Your task to perform on an android device: delete a single message in the gmail app Image 0: 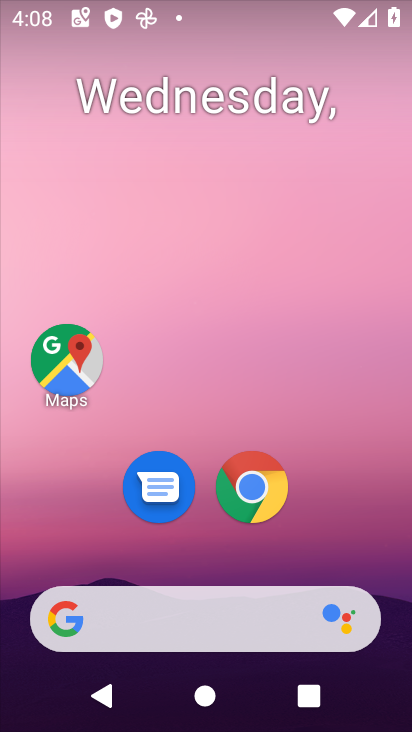
Step 0: drag from (383, 567) to (377, 306)
Your task to perform on an android device: delete a single message in the gmail app Image 1: 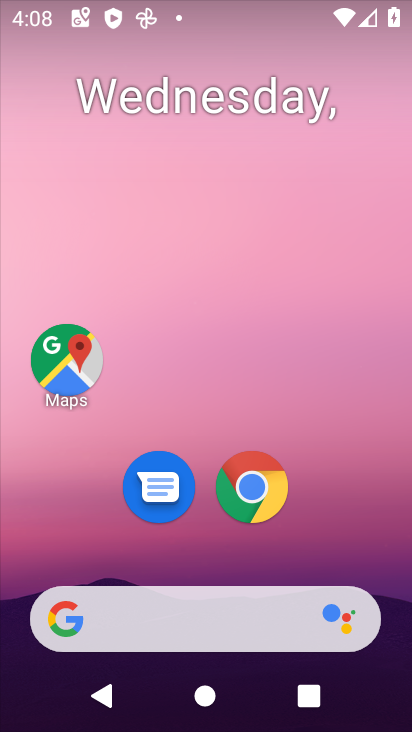
Step 1: drag from (325, 499) to (332, 67)
Your task to perform on an android device: delete a single message in the gmail app Image 2: 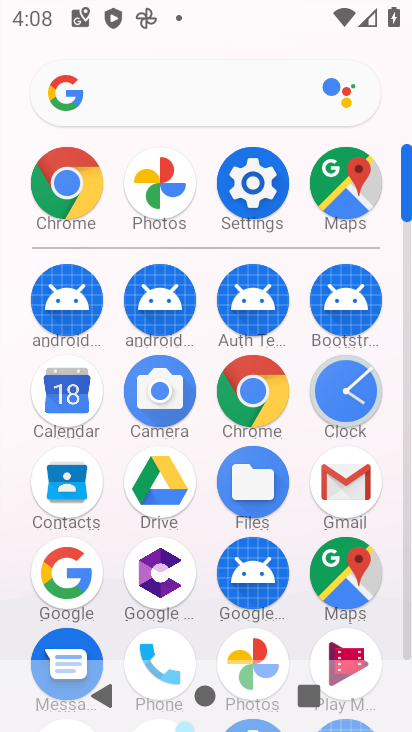
Step 2: click (369, 492)
Your task to perform on an android device: delete a single message in the gmail app Image 3: 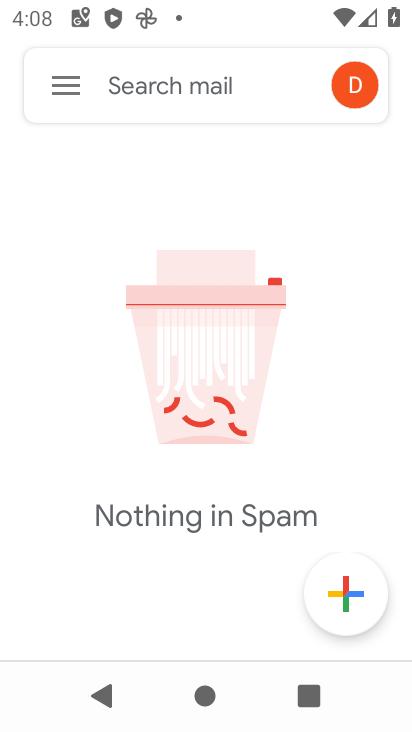
Step 3: click (70, 97)
Your task to perform on an android device: delete a single message in the gmail app Image 4: 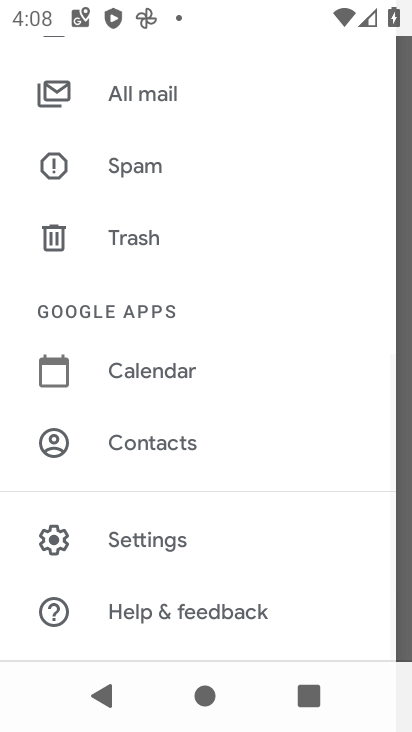
Step 4: drag from (257, 565) to (260, 406)
Your task to perform on an android device: delete a single message in the gmail app Image 5: 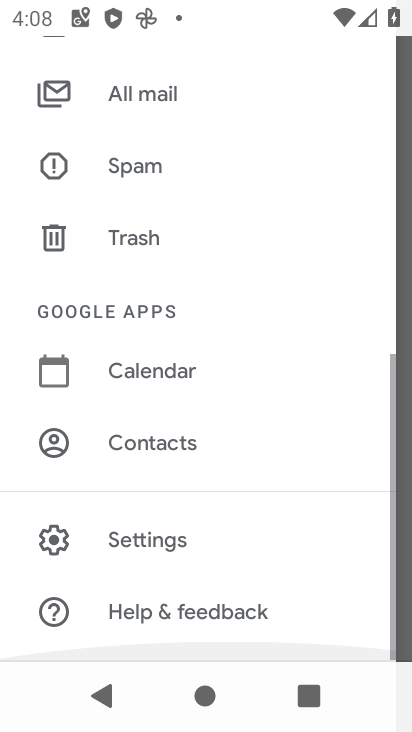
Step 5: drag from (272, 348) to (276, 444)
Your task to perform on an android device: delete a single message in the gmail app Image 6: 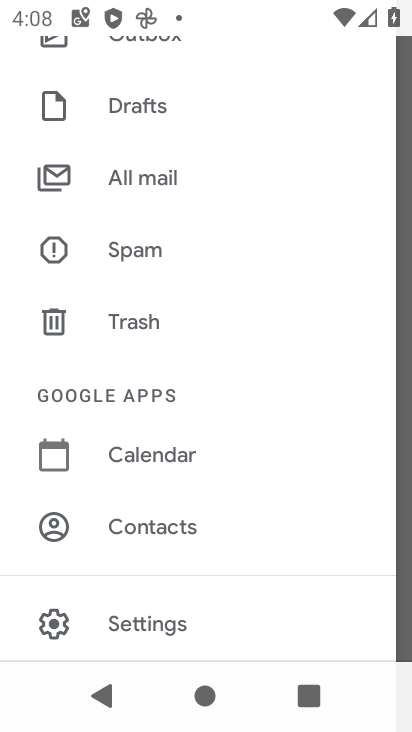
Step 6: drag from (280, 330) to (289, 419)
Your task to perform on an android device: delete a single message in the gmail app Image 7: 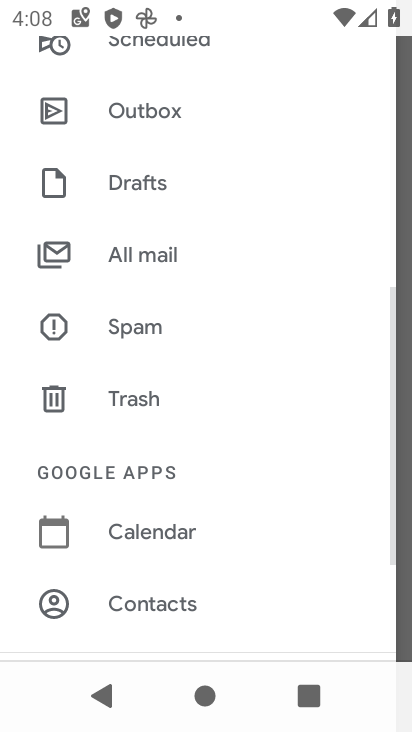
Step 7: drag from (296, 316) to (298, 404)
Your task to perform on an android device: delete a single message in the gmail app Image 8: 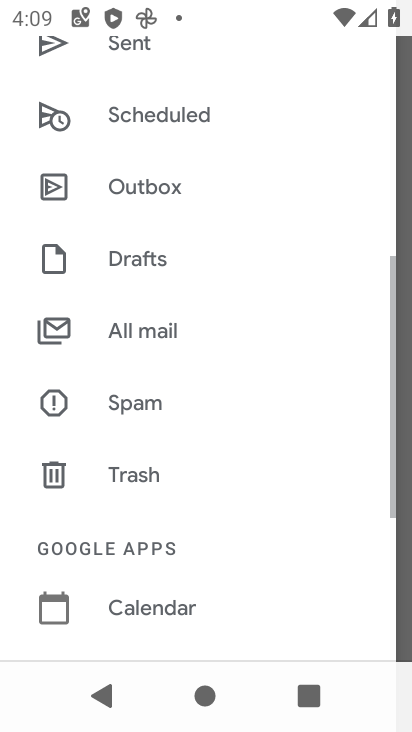
Step 8: drag from (304, 312) to (306, 393)
Your task to perform on an android device: delete a single message in the gmail app Image 9: 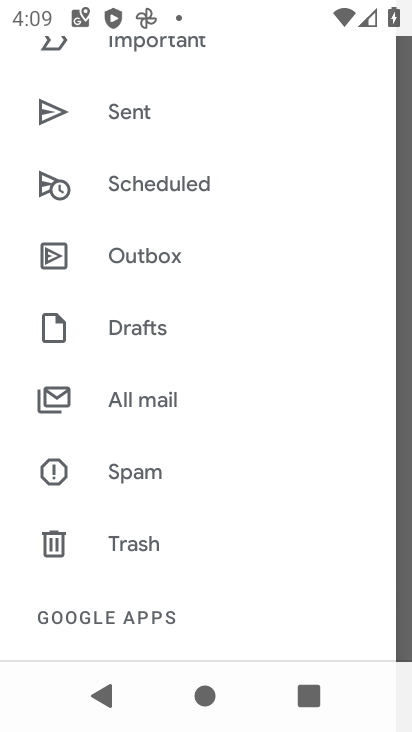
Step 9: click (319, 350)
Your task to perform on an android device: delete a single message in the gmail app Image 10: 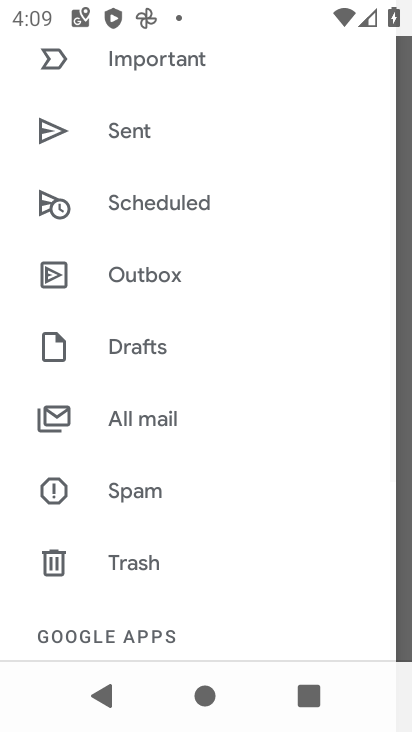
Step 10: drag from (317, 317) to (314, 404)
Your task to perform on an android device: delete a single message in the gmail app Image 11: 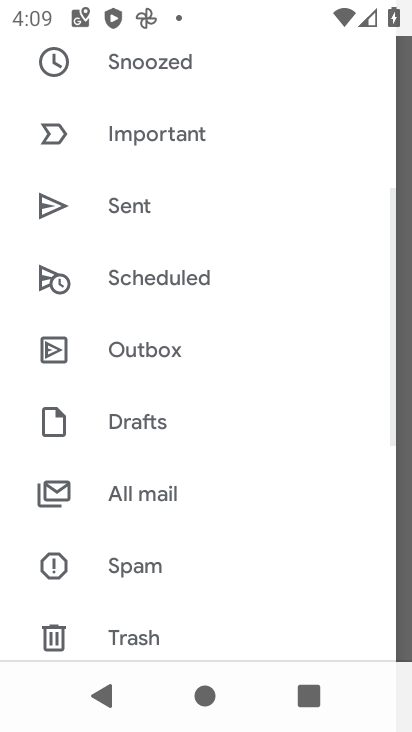
Step 11: drag from (316, 327) to (316, 372)
Your task to perform on an android device: delete a single message in the gmail app Image 12: 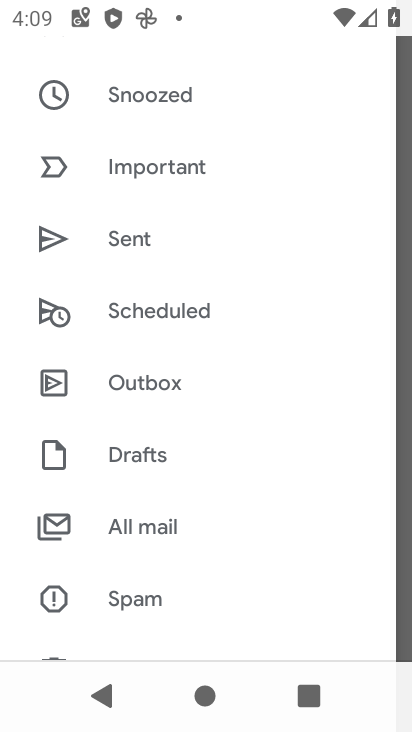
Step 12: drag from (311, 328) to (311, 383)
Your task to perform on an android device: delete a single message in the gmail app Image 13: 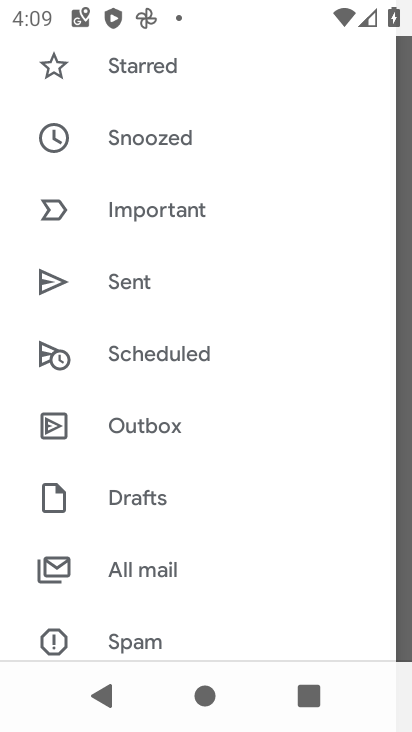
Step 13: drag from (317, 323) to (309, 425)
Your task to perform on an android device: delete a single message in the gmail app Image 14: 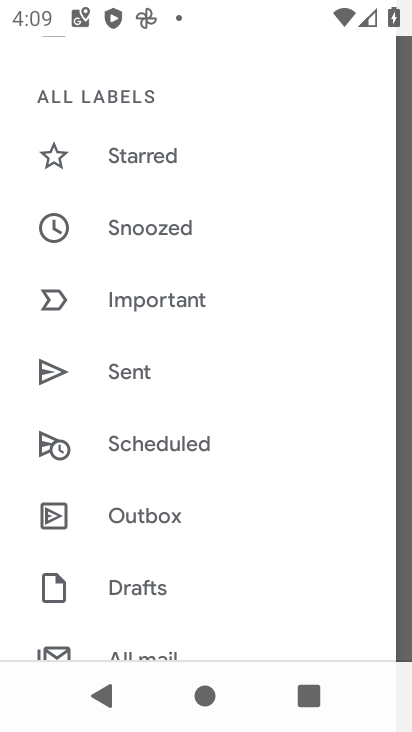
Step 14: drag from (309, 284) to (312, 402)
Your task to perform on an android device: delete a single message in the gmail app Image 15: 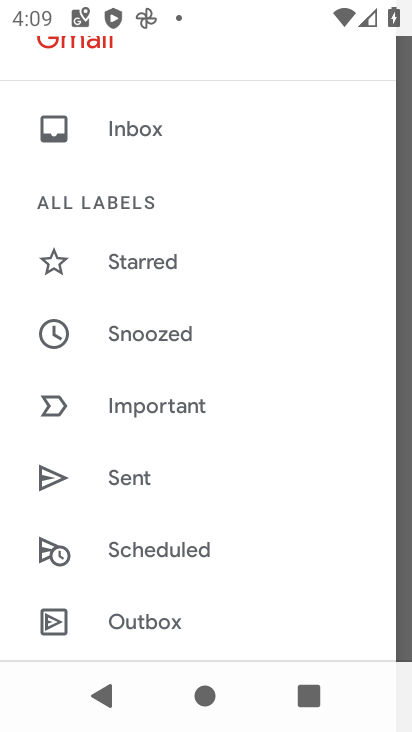
Step 15: drag from (296, 232) to (307, 507)
Your task to perform on an android device: delete a single message in the gmail app Image 16: 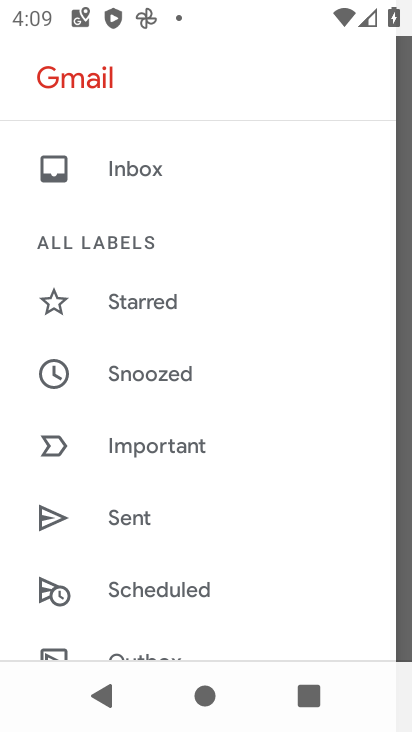
Step 16: click (185, 200)
Your task to perform on an android device: delete a single message in the gmail app Image 17: 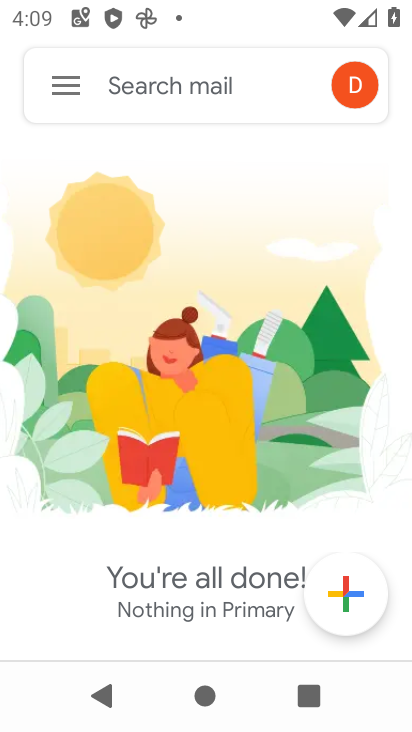
Step 17: task complete